Your task to perform on an android device: turn on the 24-hour format for clock Image 0: 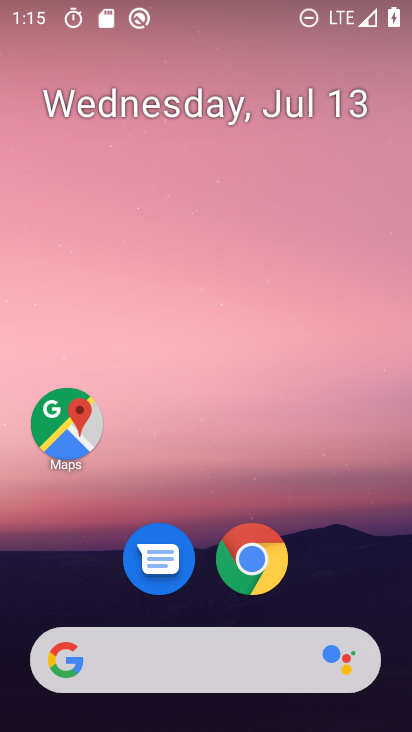
Step 0: drag from (211, 640) to (243, 281)
Your task to perform on an android device: turn on the 24-hour format for clock Image 1: 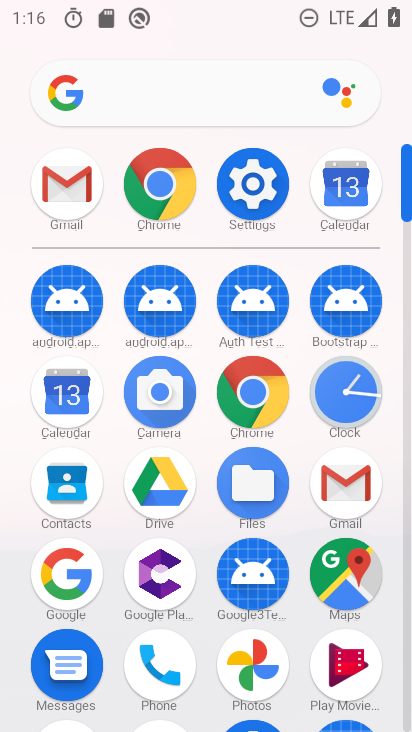
Step 1: click (360, 398)
Your task to perform on an android device: turn on the 24-hour format for clock Image 2: 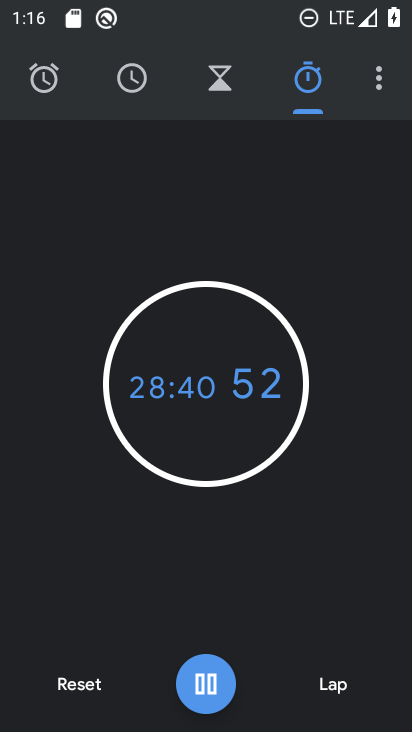
Step 2: click (376, 105)
Your task to perform on an android device: turn on the 24-hour format for clock Image 3: 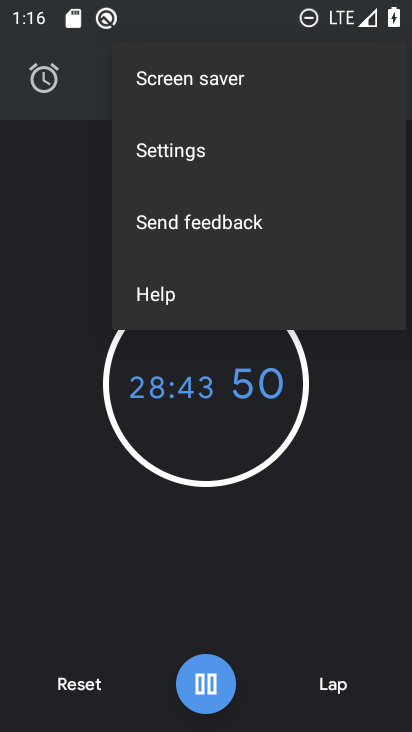
Step 3: click (199, 153)
Your task to perform on an android device: turn on the 24-hour format for clock Image 4: 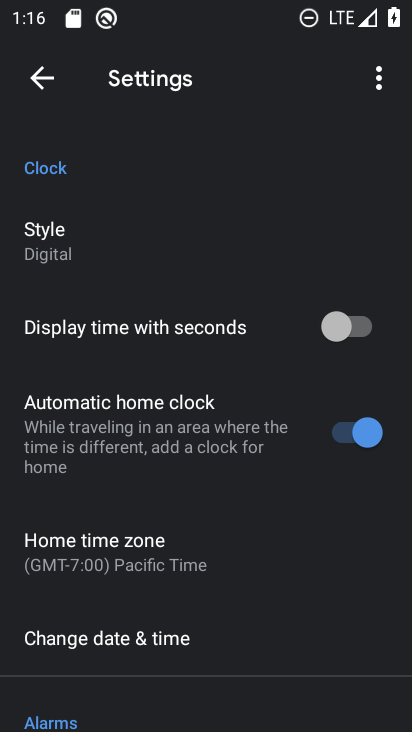
Step 4: click (105, 646)
Your task to perform on an android device: turn on the 24-hour format for clock Image 5: 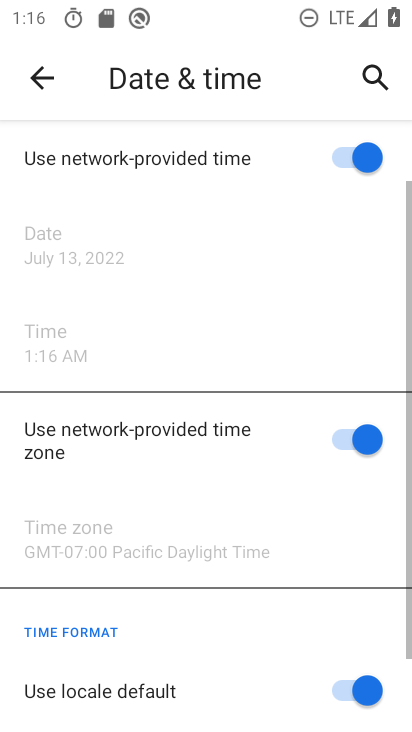
Step 5: task complete